Your task to perform on an android device: open app "Spotify" Image 0: 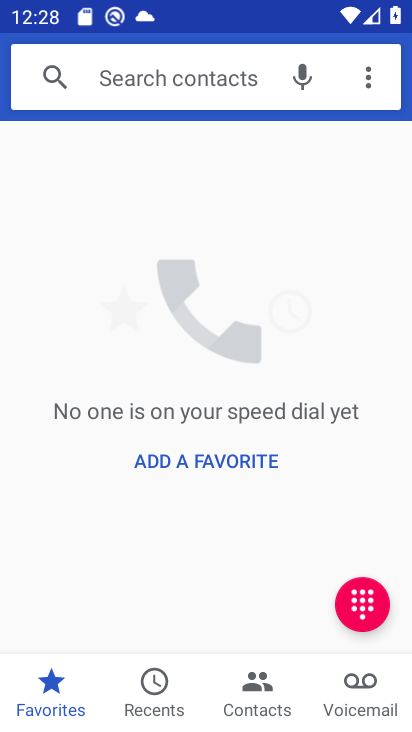
Step 0: press home button
Your task to perform on an android device: open app "Spotify" Image 1: 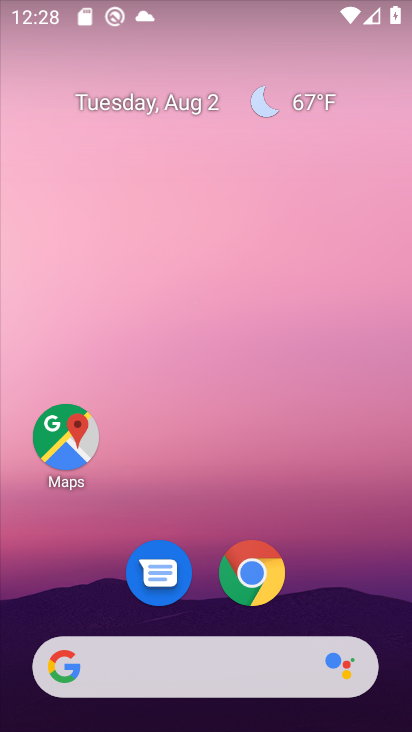
Step 1: drag from (196, 671) to (233, 106)
Your task to perform on an android device: open app "Spotify" Image 2: 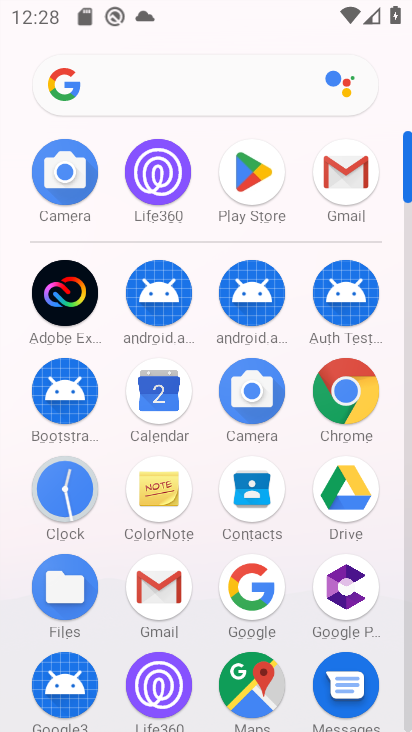
Step 2: click (232, 163)
Your task to perform on an android device: open app "Spotify" Image 3: 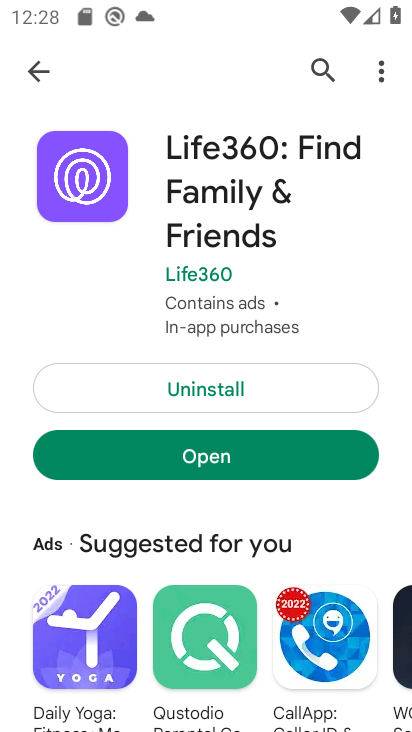
Step 3: click (232, 163)
Your task to perform on an android device: open app "Spotify" Image 4: 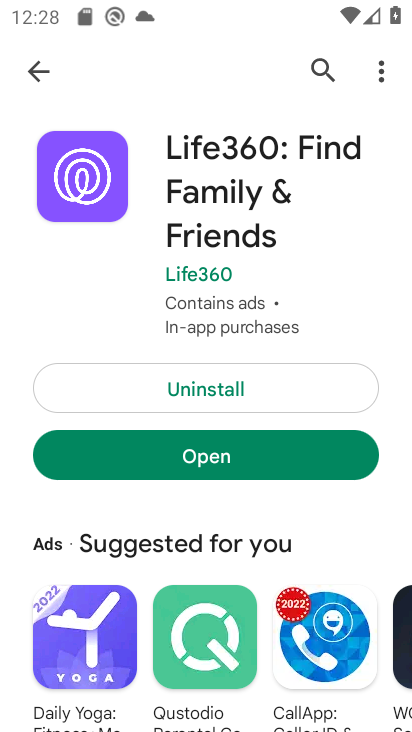
Step 4: click (321, 58)
Your task to perform on an android device: open app "Spotify" Image 5: 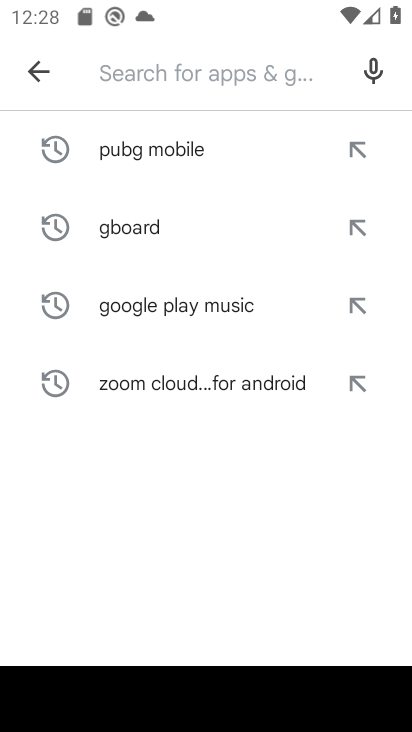
Step 5: type "spotify"
Your task to perform on an android device: open app "Spotify" Image 6: 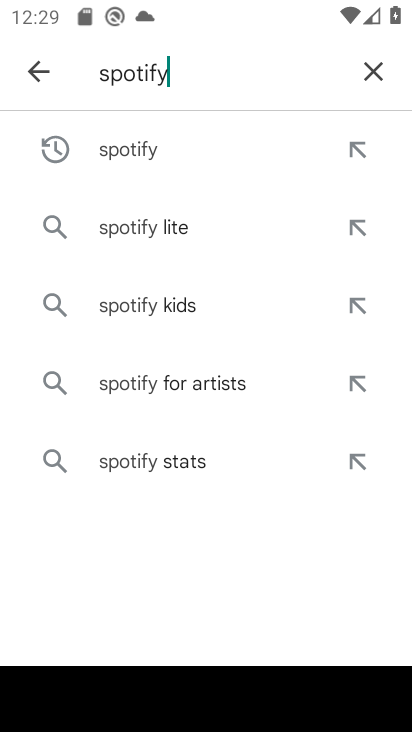
Step 6: click (155, 163)
Your task to perform on an android device: open app "Spotify" Image 7: 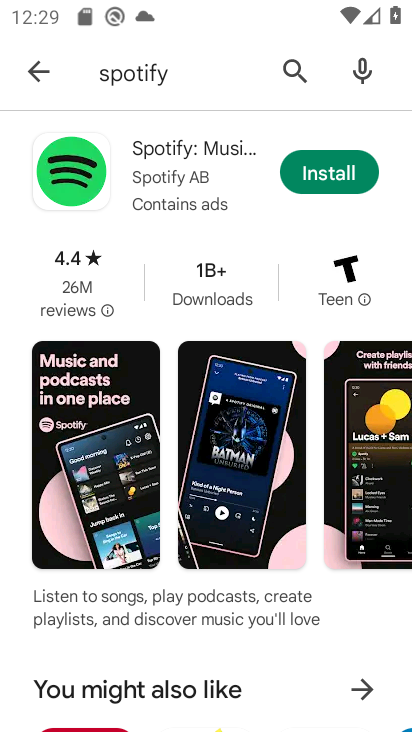
Step 7: task complete